Your task to perform on an android device: turn on data saver in the chrome app Image 0: 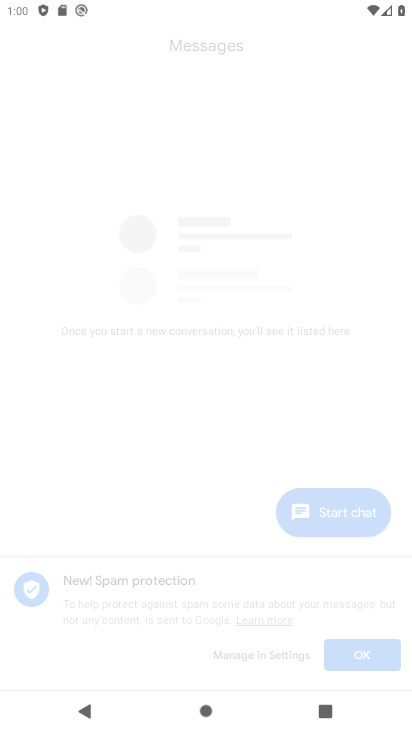
Step 0: drag from (246, 639) to (287, 223)
Your task to perform on an android device: turn on data saver in the chrome app Image 1: 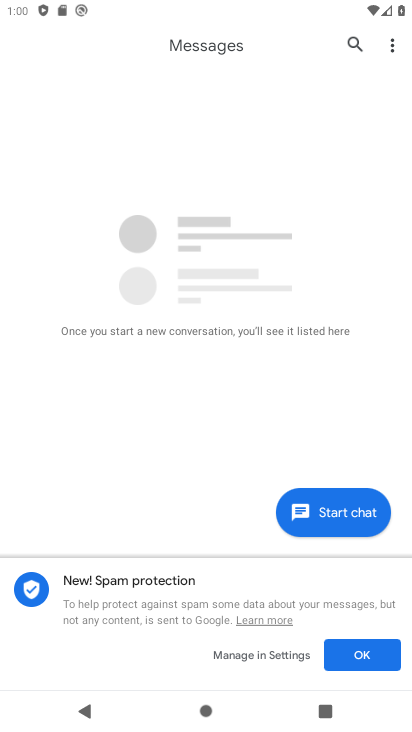
Step 1: press home button
Your task to perform on an android device: turn on data saver in the chrome app Image 2: 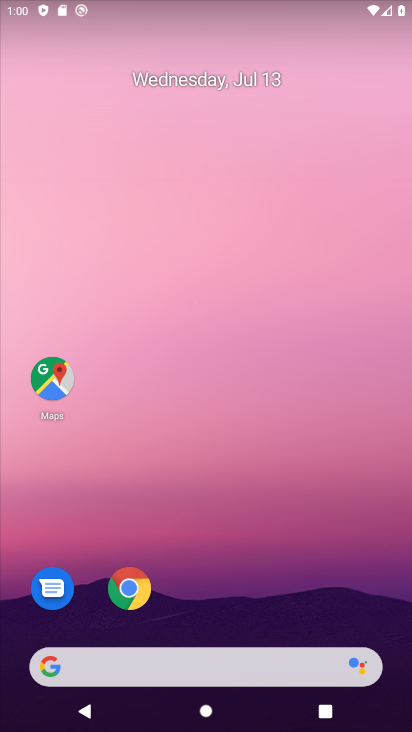
Step 2: drag from (194, 655) to (252, 214)
Your task to perform on an android device: turn on data saver in the chrome app Image 3: 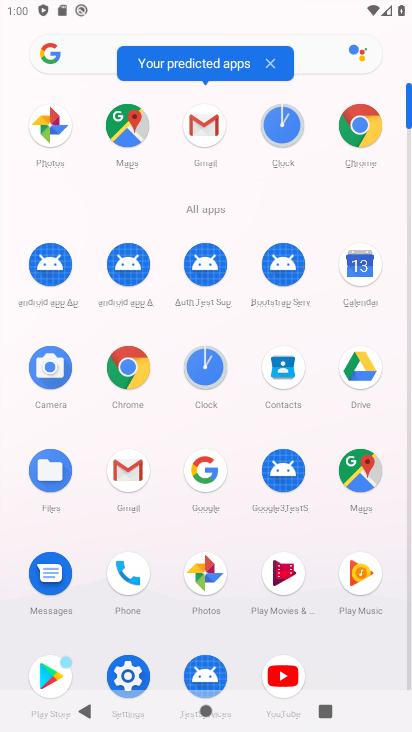
Step 3: click (123, 381)
Your task to perform on an android device: turn on data saver in the chrome app Image 4: 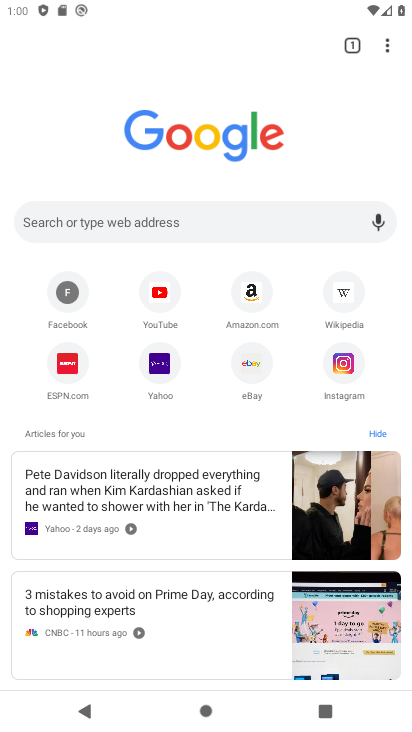
Step 4: click (389, 48)
Your task to perform on an android device: turn on data saver in the chrome app Image 5: 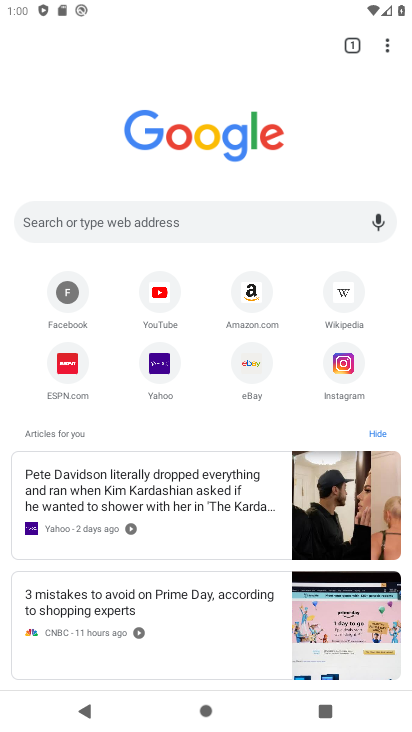
Step 5: drag from (384, 39) to (270, 367)
Your task to perform on an android device: turn on data saver in the chrome app Image 6: 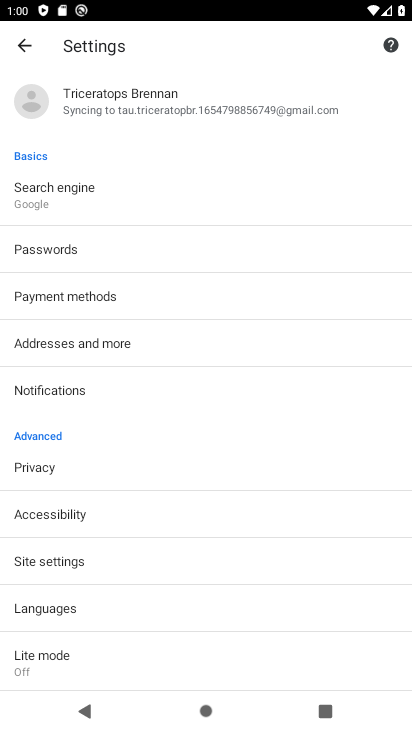
Step 6: click (76, 662)
Your task to perform on an android device: turn on data saver in the chrome app Image 7: 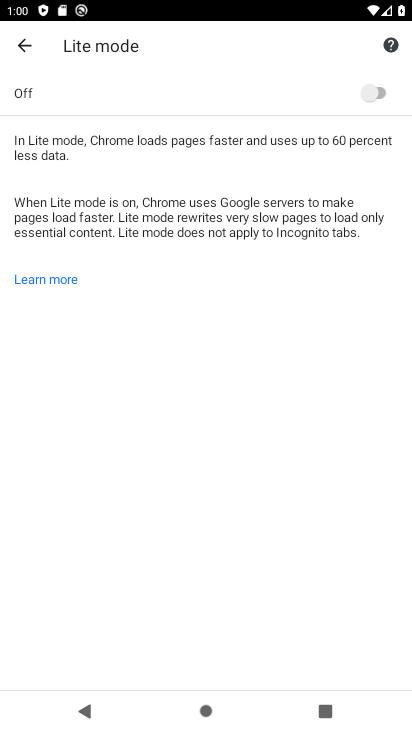
Step 7: click (394, 89)
Your task to perform on an android device: turn on data saver in the chrome app Image 8: 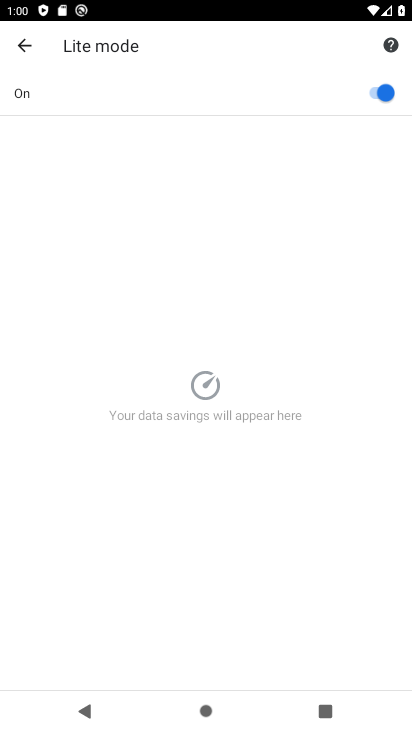
Step 8: task complete